Your task to perform on an android device: turn off location Image 0: 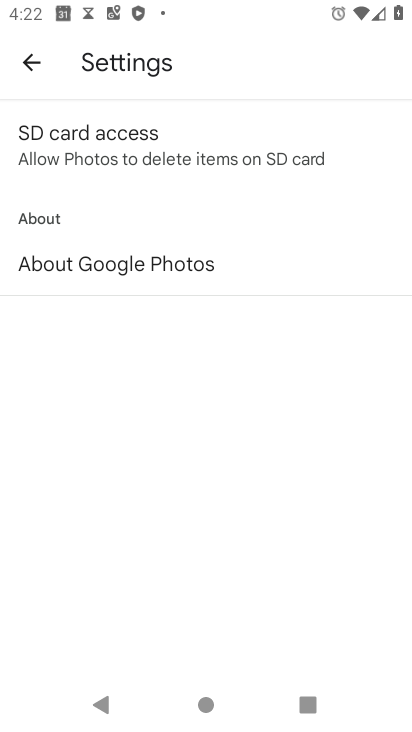
Step 0: click (33, 63)
Your task to perform on an android device: turn off location Image 1: 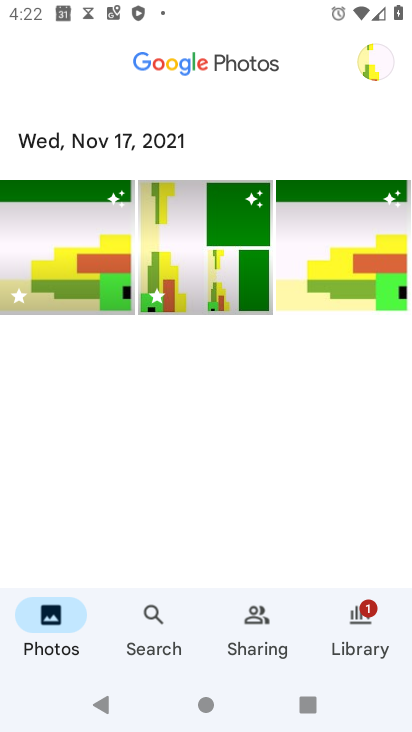
Step 1: click (33, 71)
Your task to perform on an android device: turn off location Image 2: 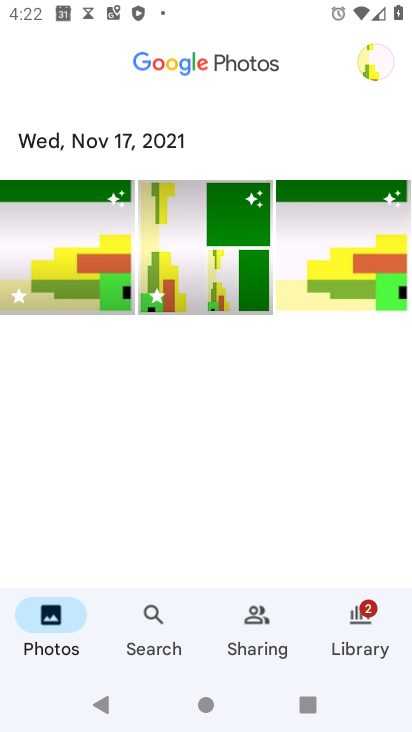
Step 2: press home button
Your task to perform on an android device: turn off location Image 3: 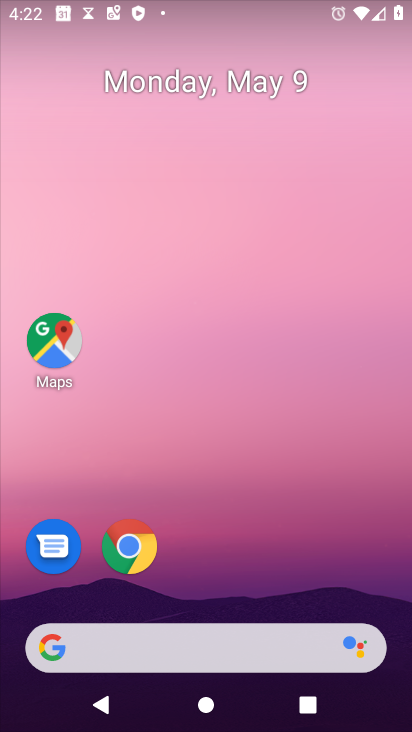
Step 3: drag from (329, 433) to (254, 79)
Your task to perform on an android device: turn off location Image 4: 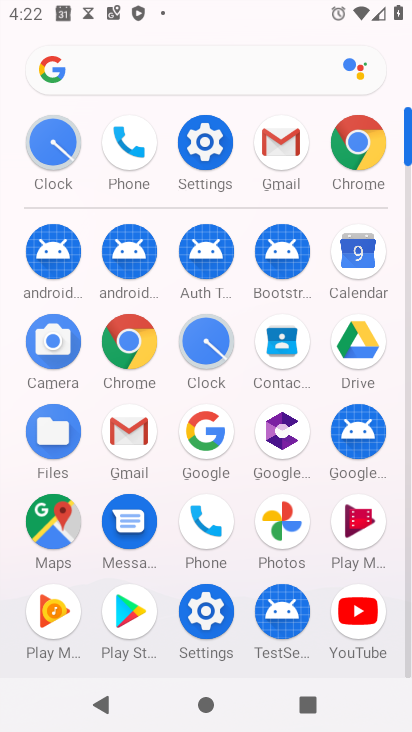
Step 4: click (198, 140)
Your task to perform on an android device: turn off location Image 5: 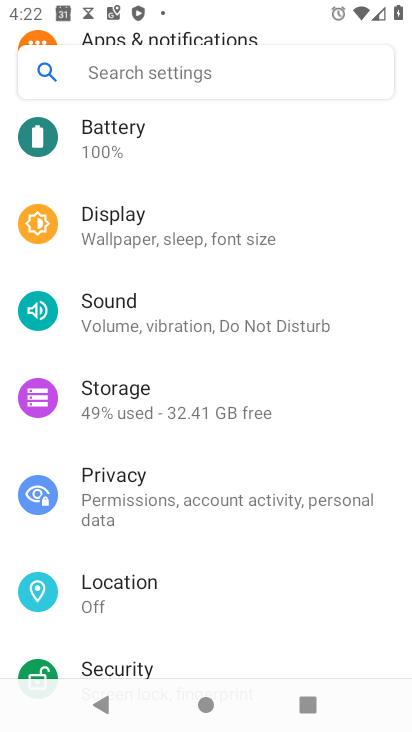
Step 5: click (157, 580)
Your task to perform on an android device: turn off location Image 6: 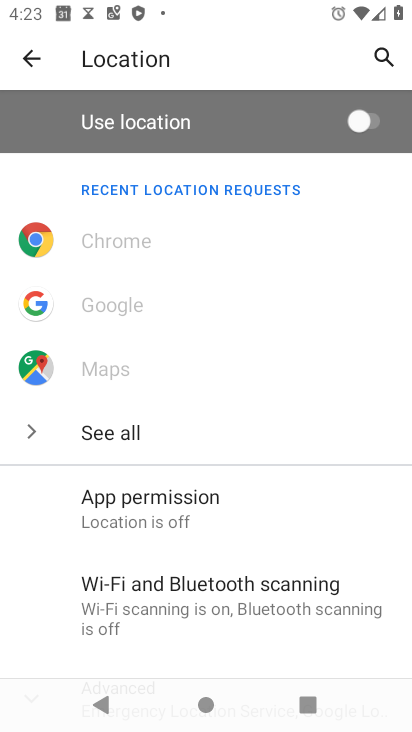
Step 6: task complete